Your task to perform on an android device: check battery use Image 0: 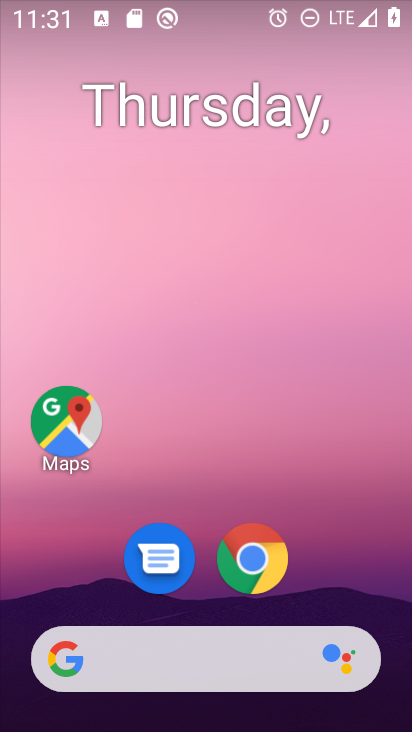
Step 0: drag from (406, 652) to (327, 194)
Your task to perform on an android device: check battery use Image 1: 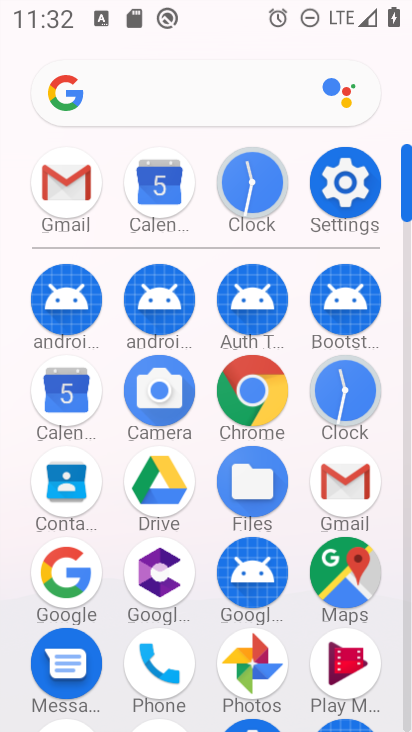
Step 1: click (408, 685)
Your task to perform on an android device: check battery use Image 2: 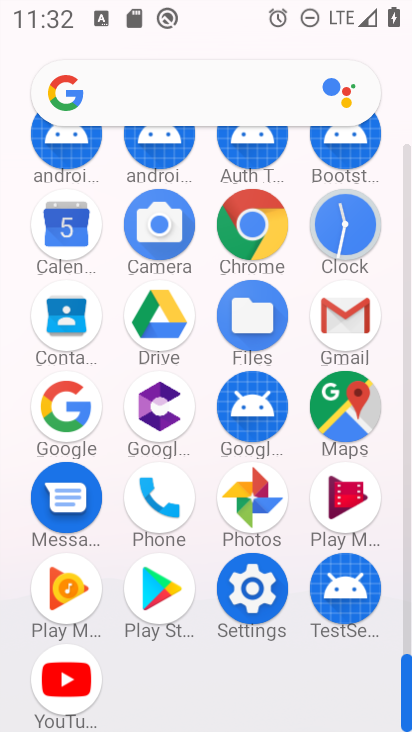
Step 2: click (255, 584)
Your task to perform on an android device: check battery use Image 3: 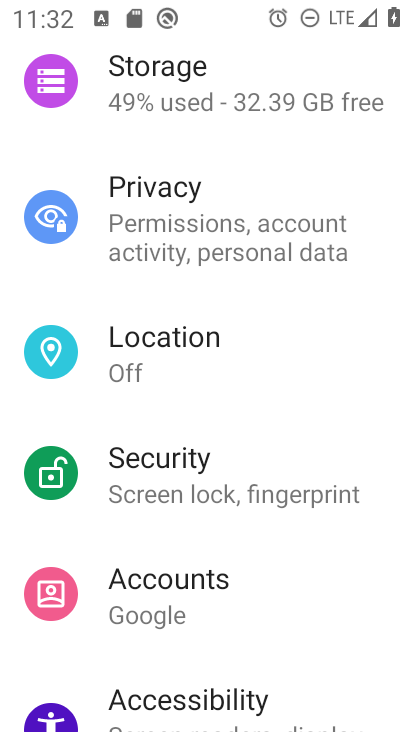
Step 3: drag from (367, 175) to (356, 442)
Your task to perform on an android device: check battery use Image 4: 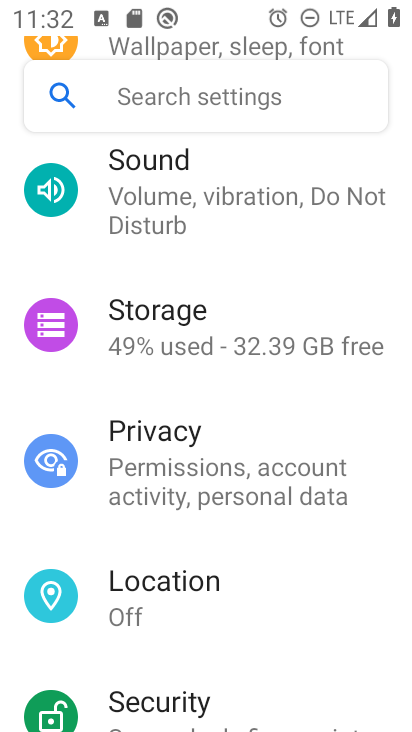
Step 4: drag from (348, 220) to (331, 507)
Your task to perform on an android device: check battery use Image 5: 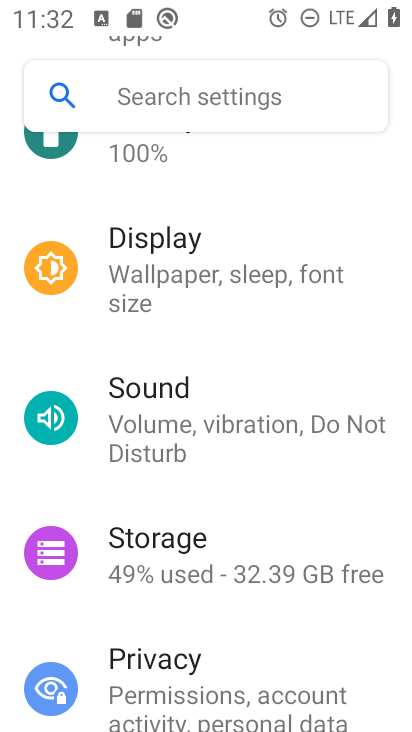
Step 5: drag from (350, 267) to (292, 544)
Your task to perform on an android device: check battery use Image 6: 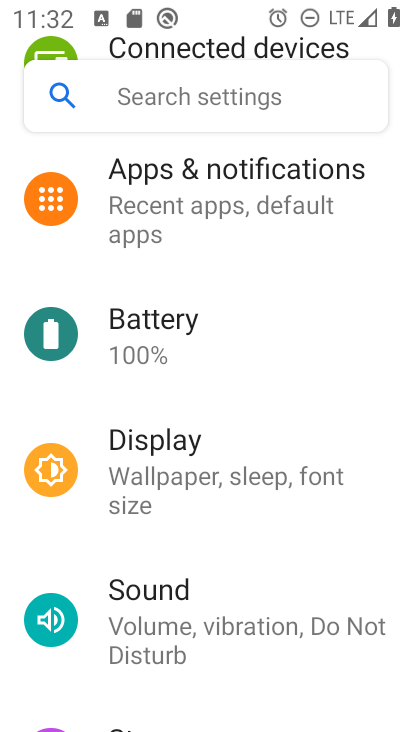
Step 6: click (119, 323)
Your task to perform on an android device: check battery use Image 7: 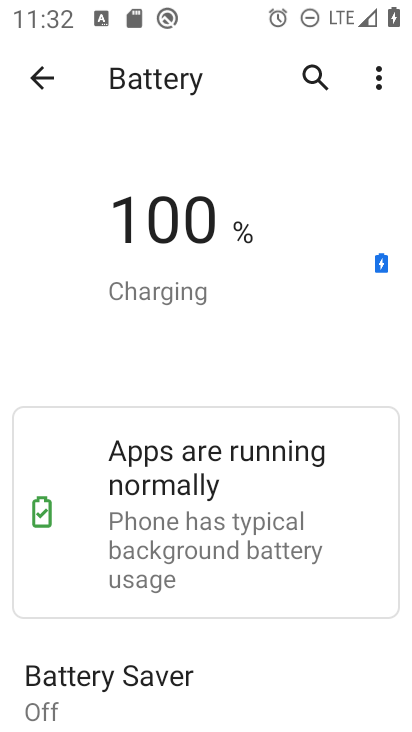
Step 7: drag from (300, 567) to (266, 243)
Your task to perform on an android device: check battery use Image 8: 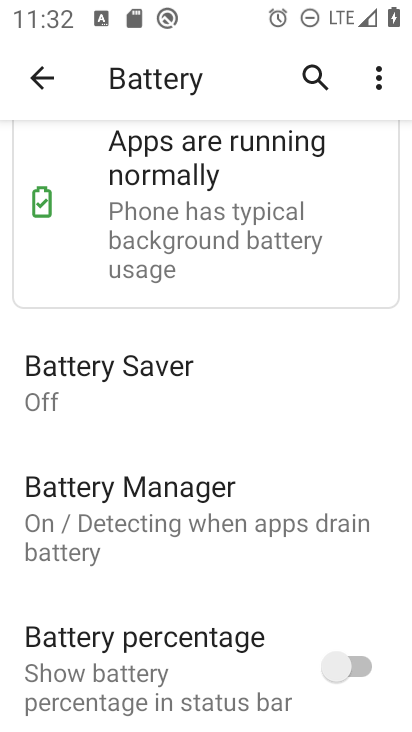
Step 8: drag from (265, 560) to (234, 230)
Your task to perform on an android device: check battery use Image 9: 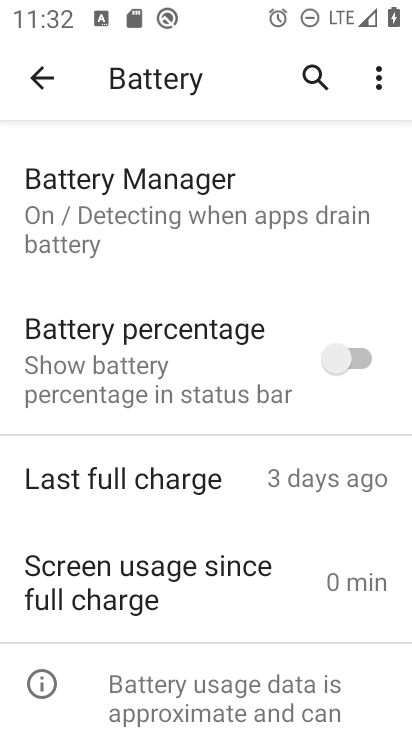
Step 9: drag from (223, 547) to (241, 214)
Your task to perform on an android device: check battery use Image 10: 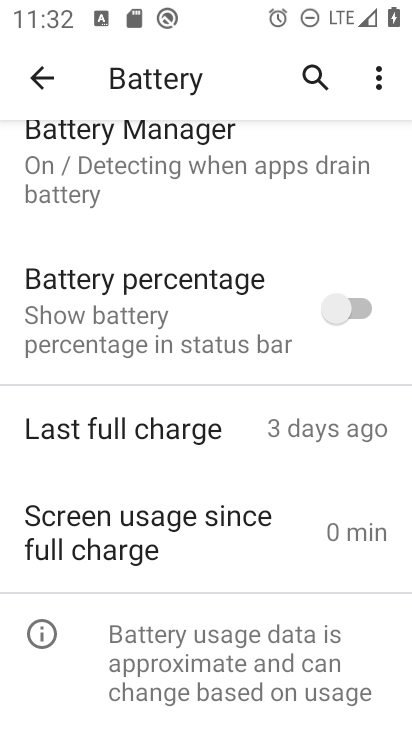
Step 10: click (376, 83)
Your task to perform on an android device: check battery use Image 11: 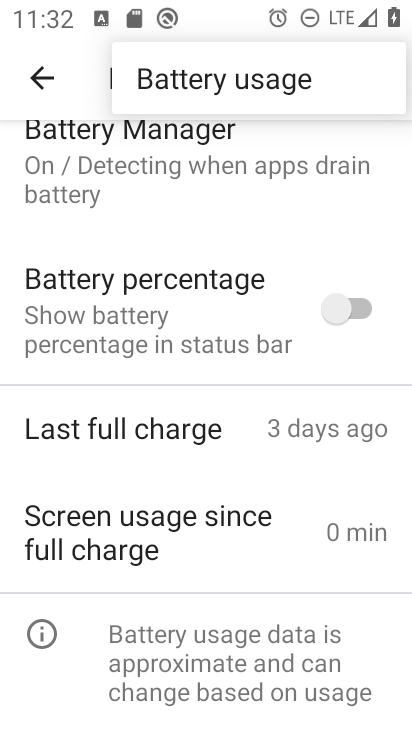
Step 11: click (197, 85)
Your task to perform on an android device: check battery use Image 12: 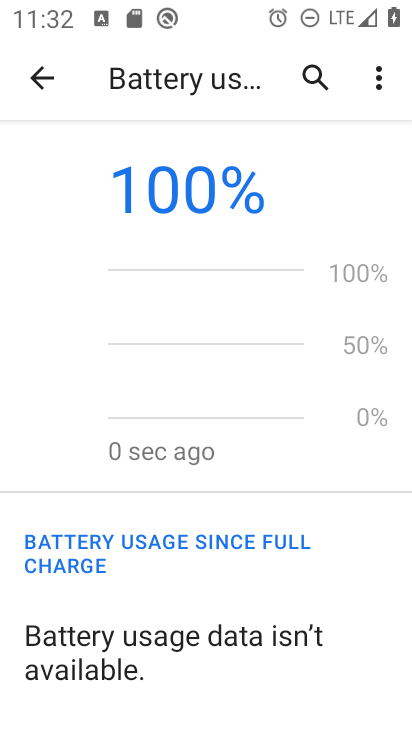
Step 12: task complete